Your task to perform on an android device: Go to settings Image 0: 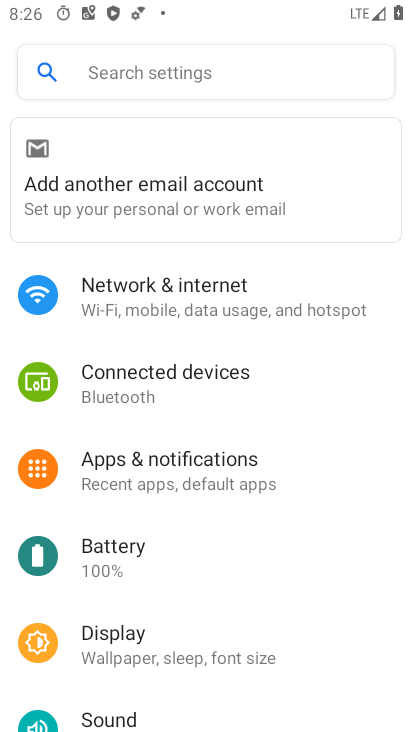
Step 0: drag from (195, 508) to (220, 164)
Your task to perform on an android device: Go to settings Image 1: 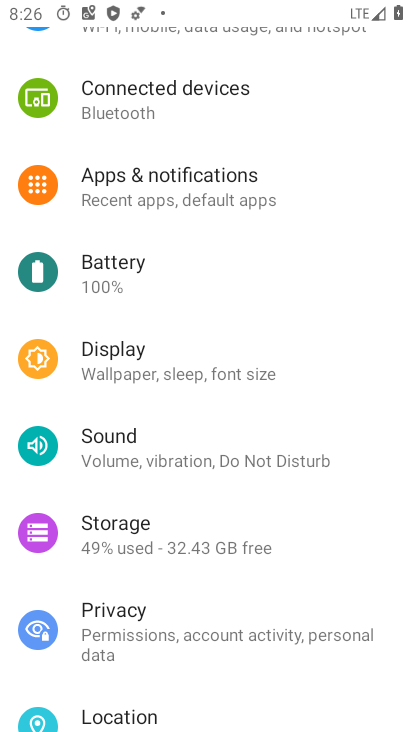
Step 1: task complete